Your task to perform on an android device: toggle show notifications on the lock screen Image 0: 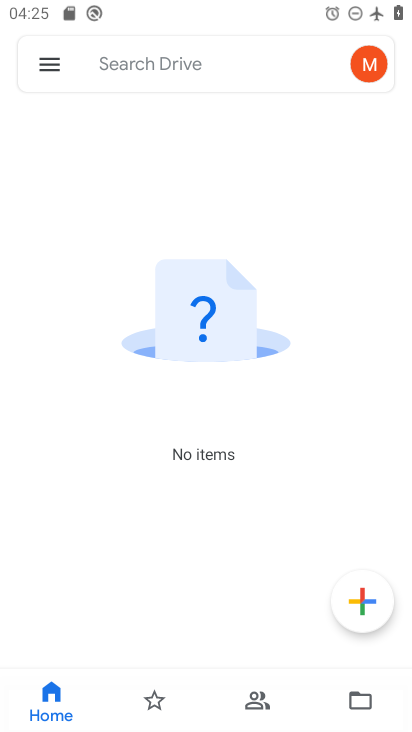
Step 0: press home button
Your task to perform on an android device: toggle show notifications on the lock screen Image 1: 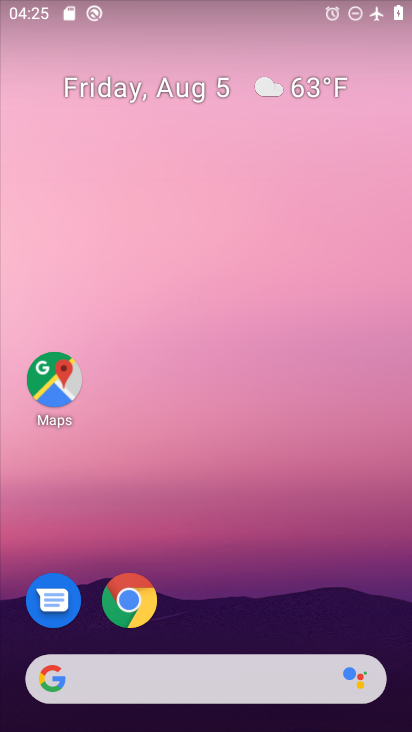
Step 1: drag from (163, 680) to (144, 30)
Your task to perform on an android device: toggle show notifications on the lock screen Image 2: 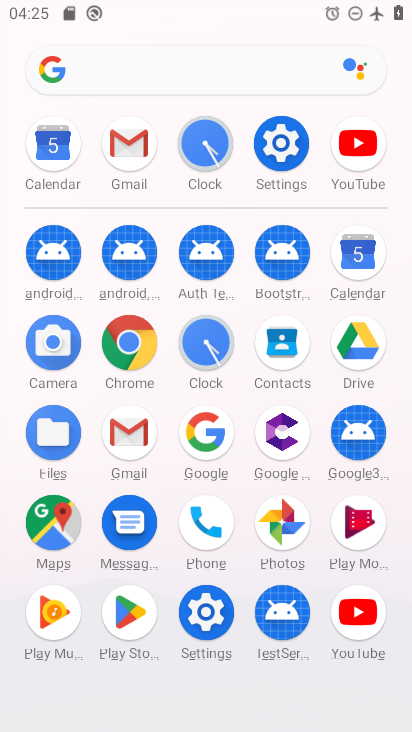
Step 2: click (281, 140)
Your task to perform on an android device: toggle show notifications on the lock screen Image 3: 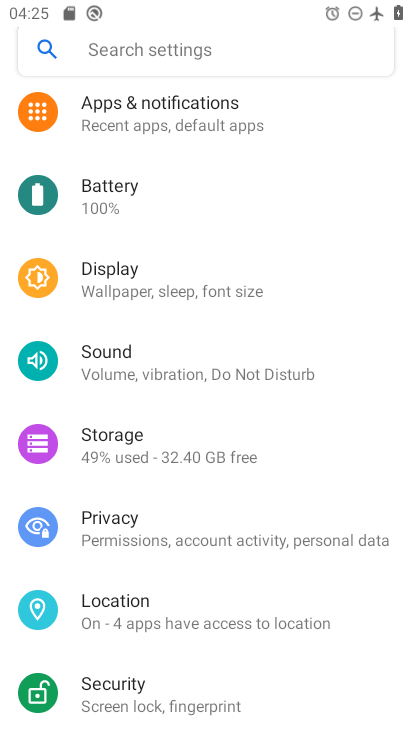
Step 3: click (151, 126)
Your task to perform on an android device: toggle show notifications on the lock screen Image 4: 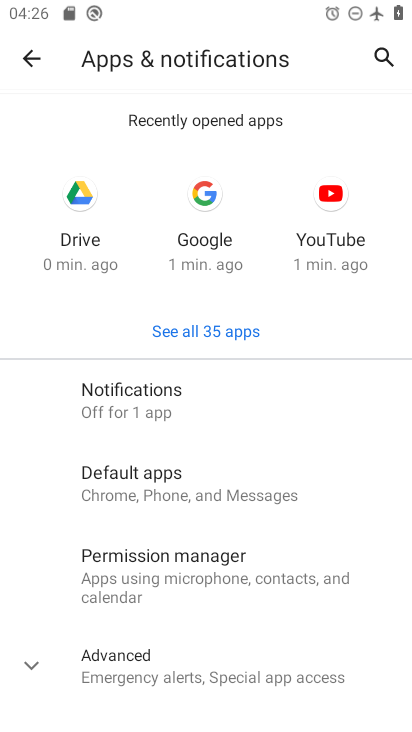
Step 4: click (144, 377)
Your task to perform on an android device: toggle show notifications on the lock screen Image 5: 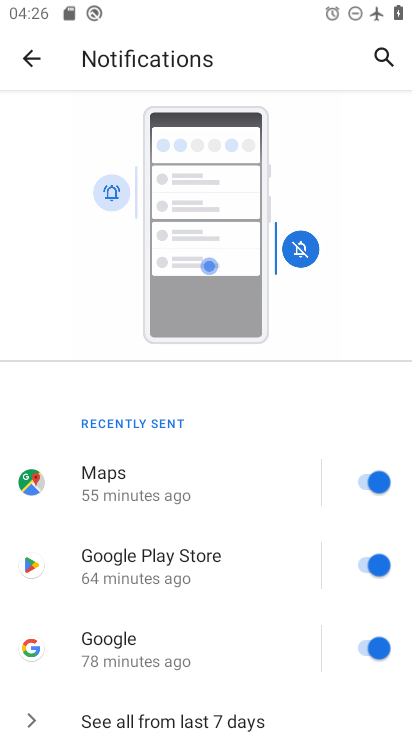
Step 5: drag from (149, 635) to (225, 462)
Your task to perform on an android device: toggle show notifications on the lock screen Image 6: 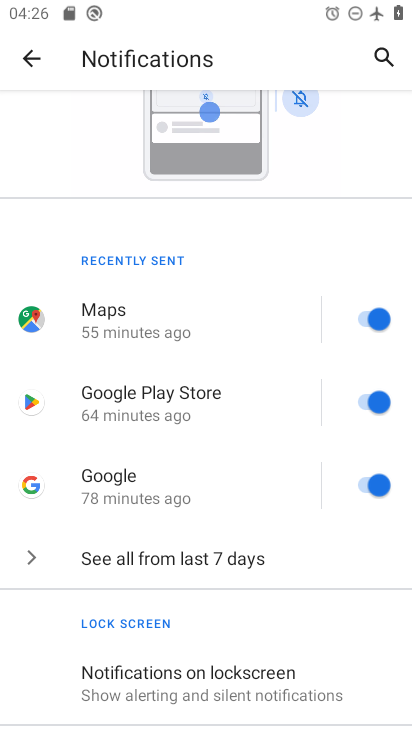
Step 6: drag from (177, 648) to (225, 532)
Your task to perform on an android device: toggle show notifications on the lock screen Image 7: 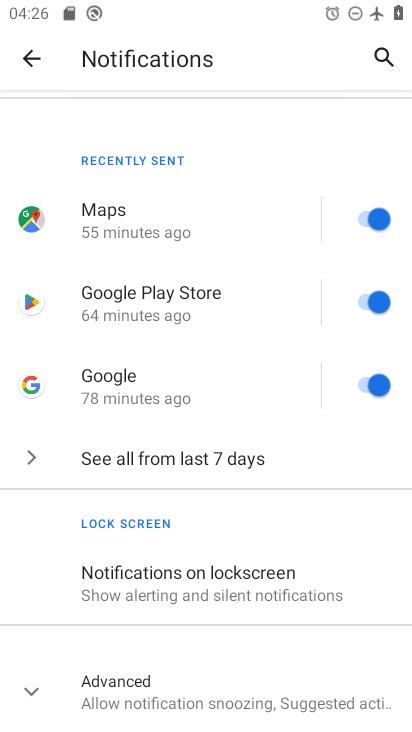
Step 7: click (112, 594)
Your task to perform on an android device: toggle show notifications on the lock screen Image 8: 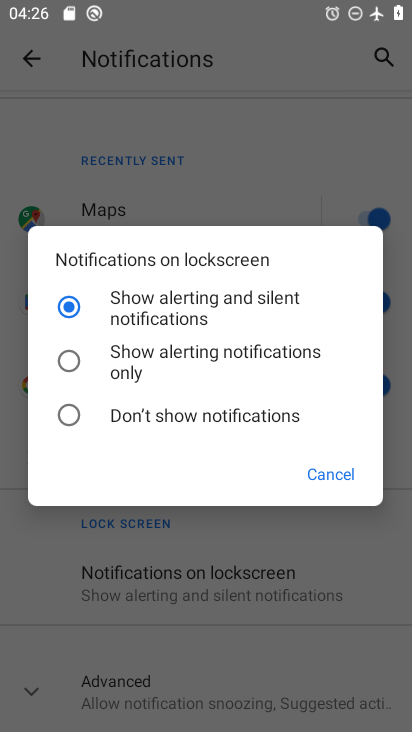
Step 8: click (67, 418)
Your task to perform on an android device: toggle show notifications on the lock screen Image 9: 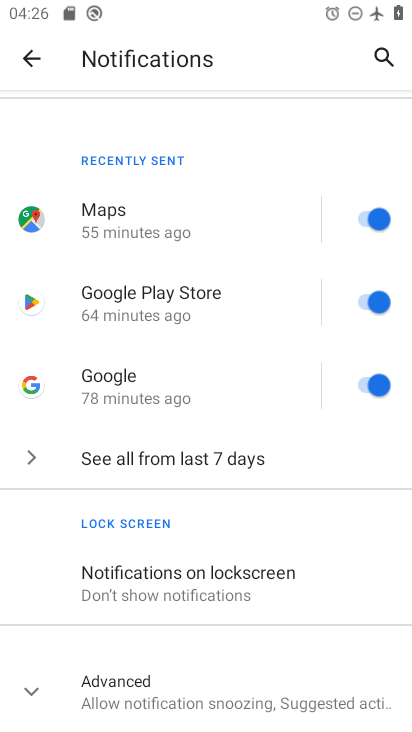
Step 9: task complete